Your task to perform on an android device: set default search engine in the chrome app Image 0: 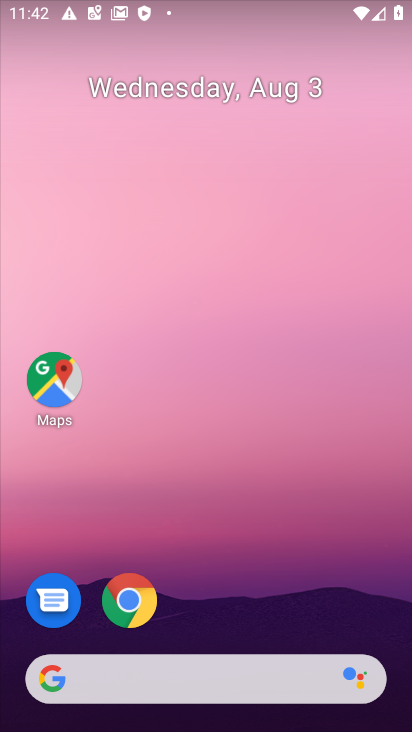
Step 0: press home button
Your task to perform on an android device: set default search engine in the chrome app Image 1: 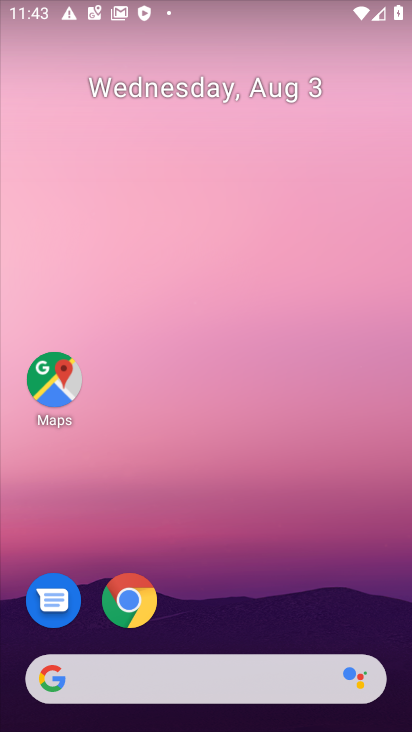
Step 1: click (127, 601)
Your task to perform on an android device: set default search engine in the chrome app Image 2: 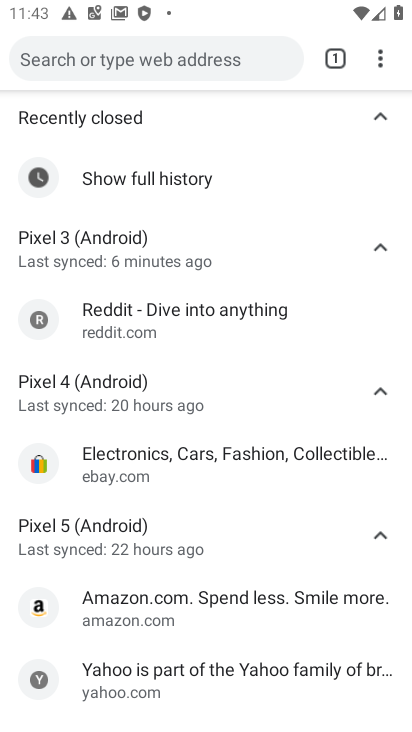
Step 2: drag from (377, 59) to (281, 547)
Your task to perform on an android device: set default search engine in the chrome app Image 3: 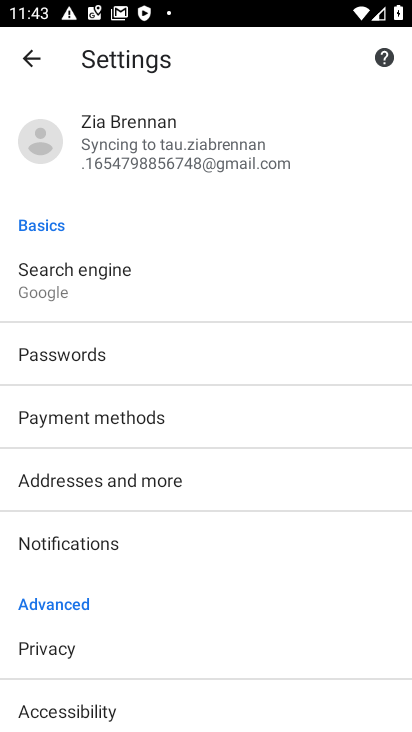
Step 3: click (103, 282)
Your task to perform on an android device: set default search engine in the chrome app Image 4: 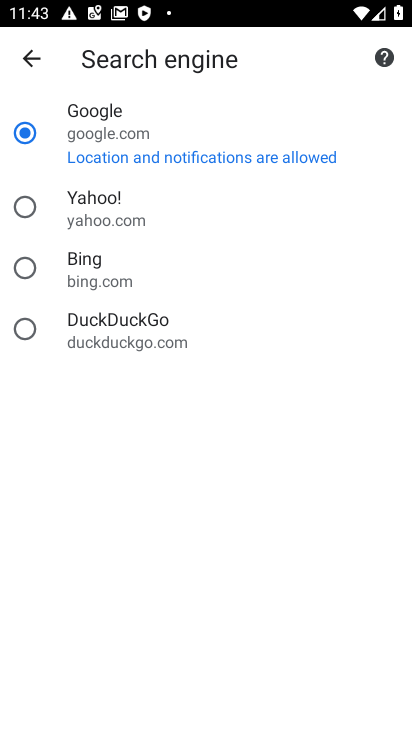
Step 4: click (21, 208)
Your task to perform on an android device: set default search engine in the chrome app Image 5: 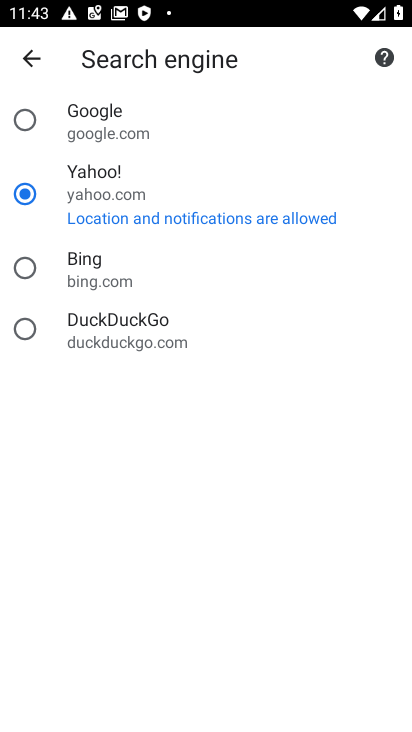
Step 5: task complete